Your task to perform on an android device: Go to settings Image 0: 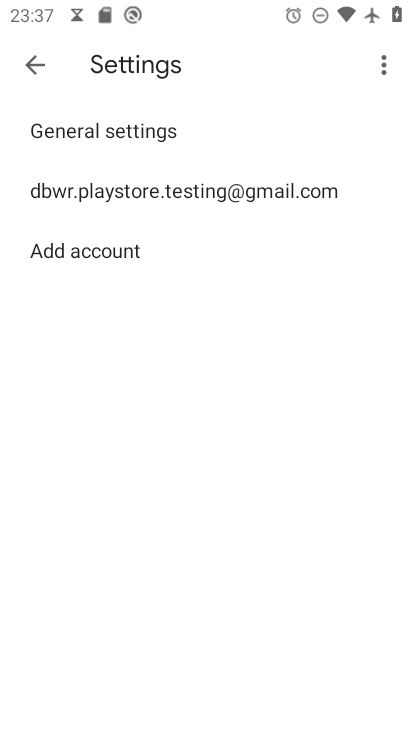
Step 0: press home button
Your task to perform on an android device: Go to settings Image 1: 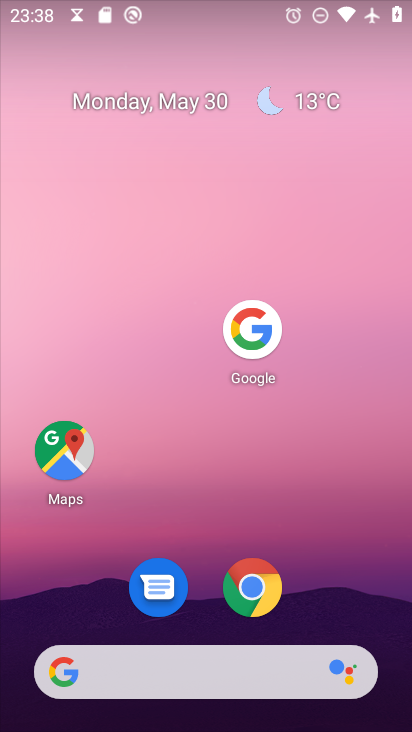
Step 1: drag from (235, 678) to (319, 40)
Your task to perform on an android device: Go to settings Image 2: 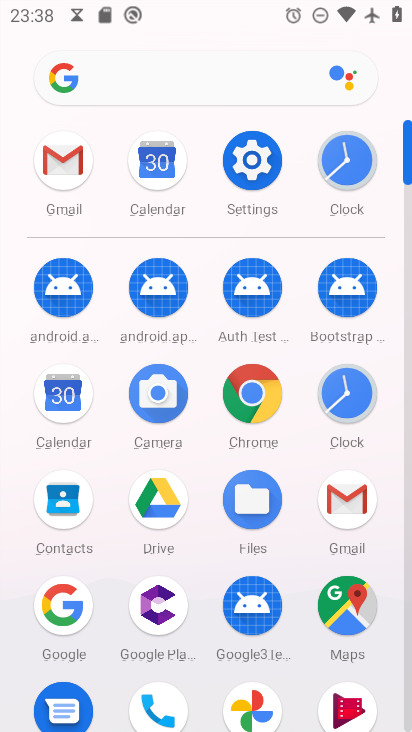
Step 2: click (261, 167)
Your task to perform on an android device: Go to settings Image 3: 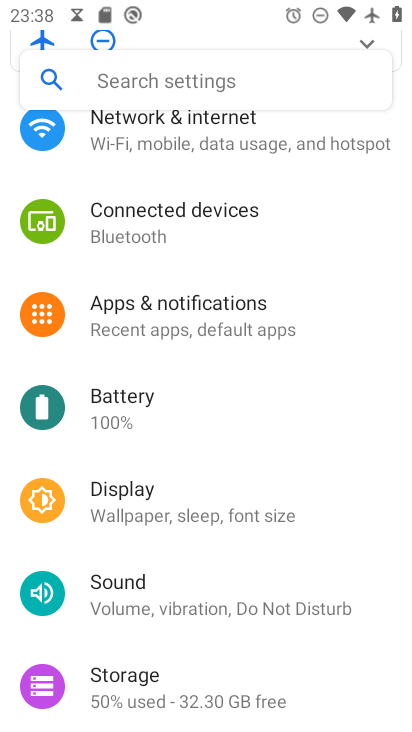
Step 3: task complete